Your task to perform on an android device: Open Wikipedia Image 0: 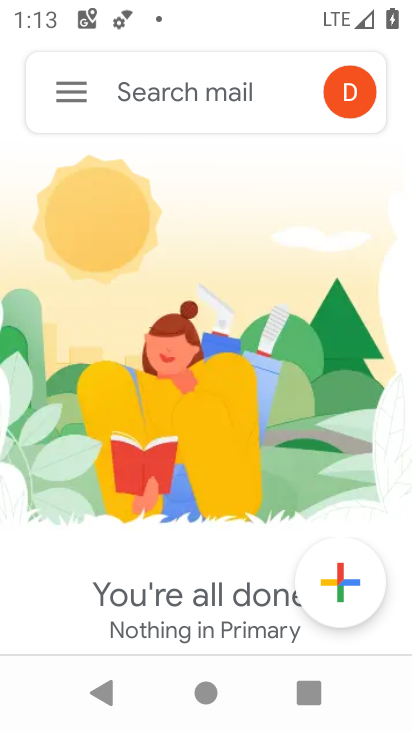
Step 0: drag from (213, 599) to (195, 232)
Your task to perform on an android device: Open Wikipedia Image 1: 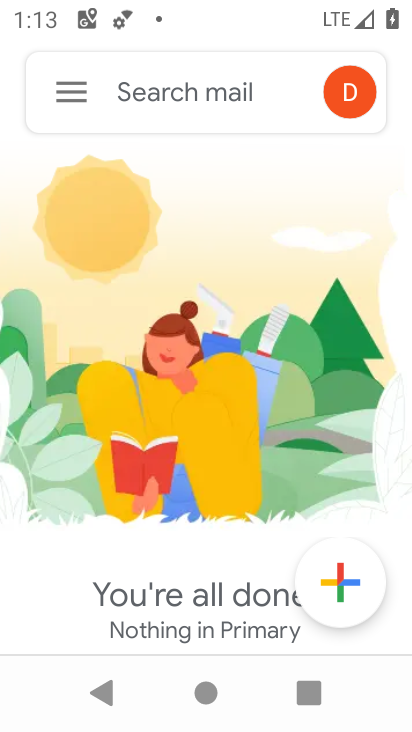
Step 1: press home button
Your task to perform on an android device: Open Wikipedia Image 2: 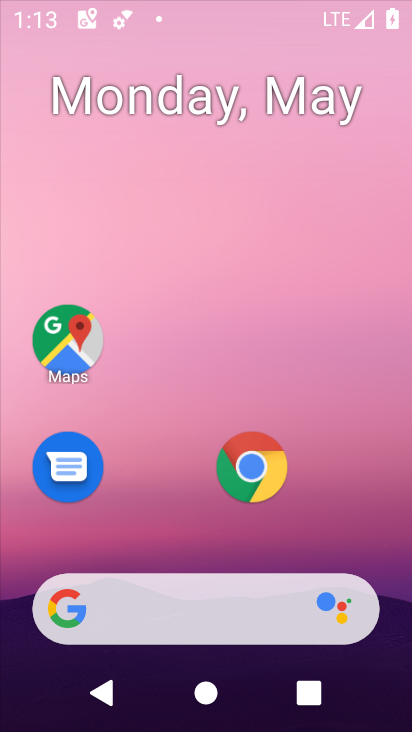
Step 2: drag from (238, 553) to (290, 131)
Your task to perform on an android device: Open Wikipedia Image 3: 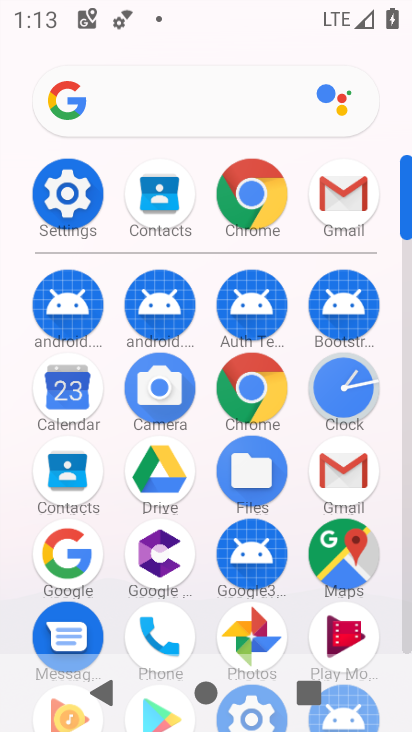
Step 3: click (195, 110)
Your task to perform on an android device: Open Wikipedia Image 4: 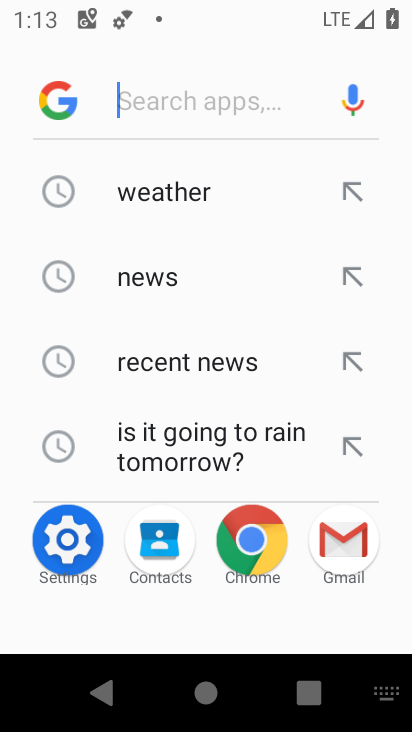
Step 4: type "wikipedia"
Your task to perform on an android device: Open Wikipedia Image 5: 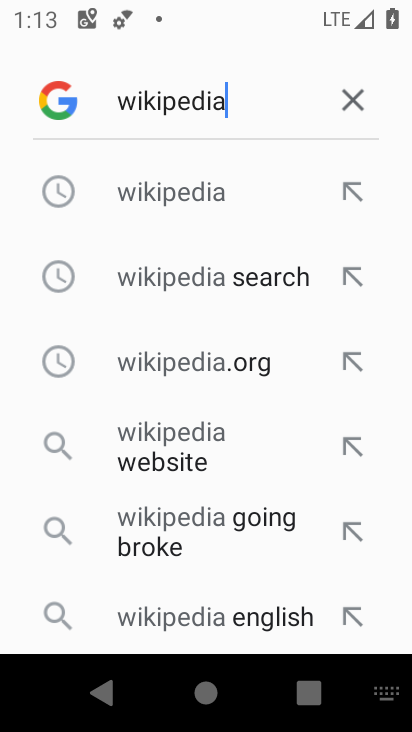
Step 5: click (153, 208)
Your task to perform on an android device: Open Wikipedia Image 6: 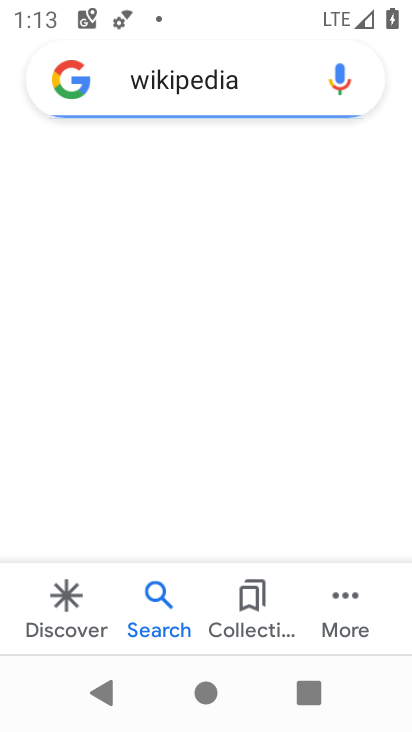
Step 6: drag from (234, 619) to (304, 137)
Your task to perform on an android device: Open Wikipedia Image 7: 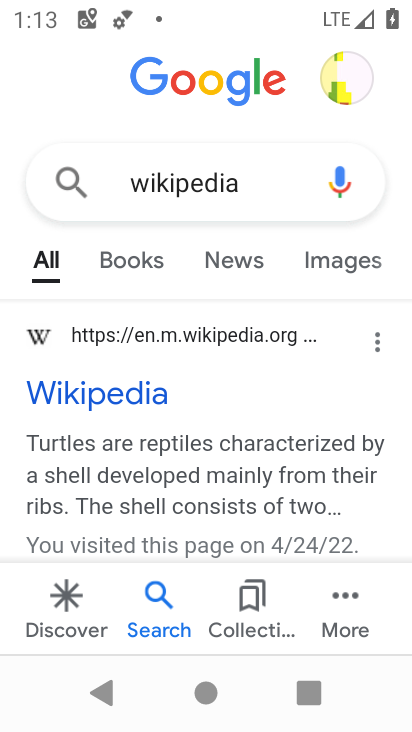
Step 7: drag from (226, 557) to (295, 292)
Your task to perform on an android device: Open Wikipedia Image 8: 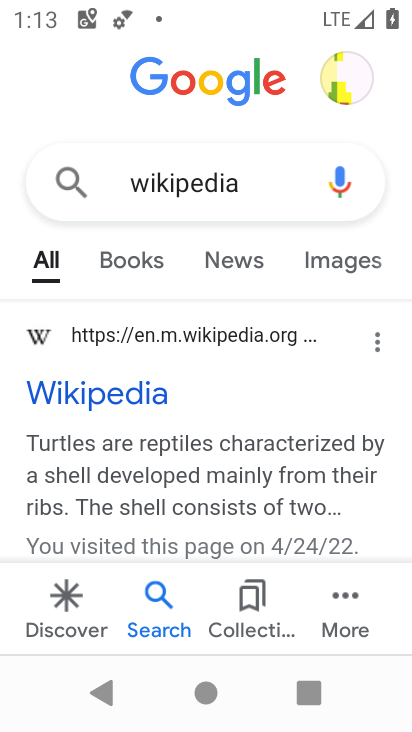
Step 8: click (89, 390)
Your task to perform on an android device: Open Wikipedia Image 9: 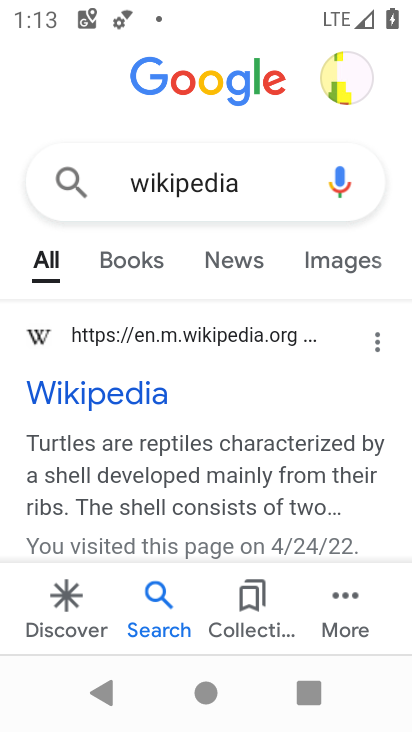
Step 9: click (89, 390)
Your task to perform on an android device: Open Wikipedia Image 10: 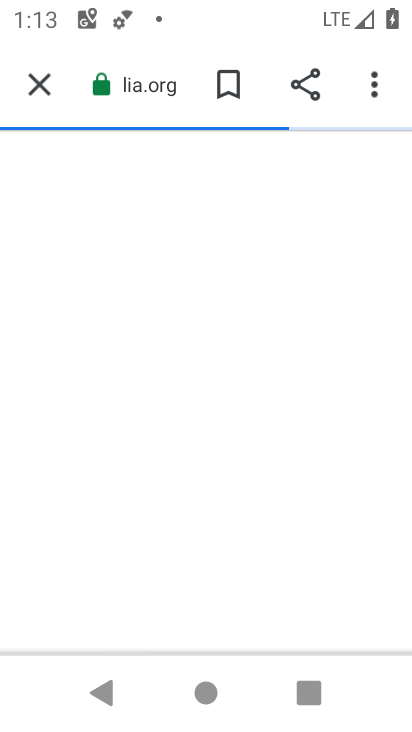
Step 10: task complete